Your task to perform on an android device: change your default location settings in chrome Image 0: 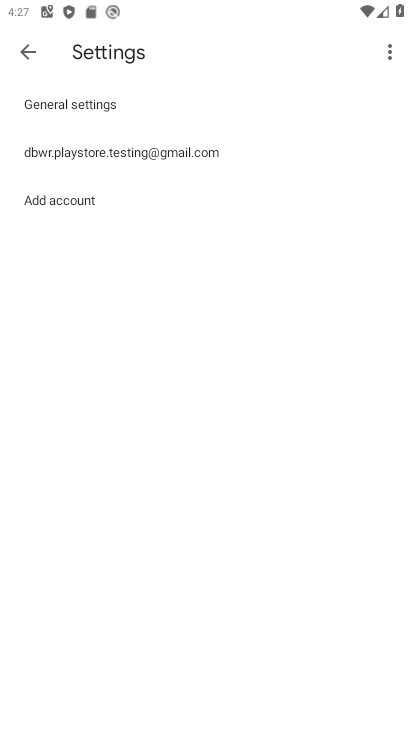
Step 0: press back button
Your task to perform on an android device: change your default location settings in chrome Image 1: 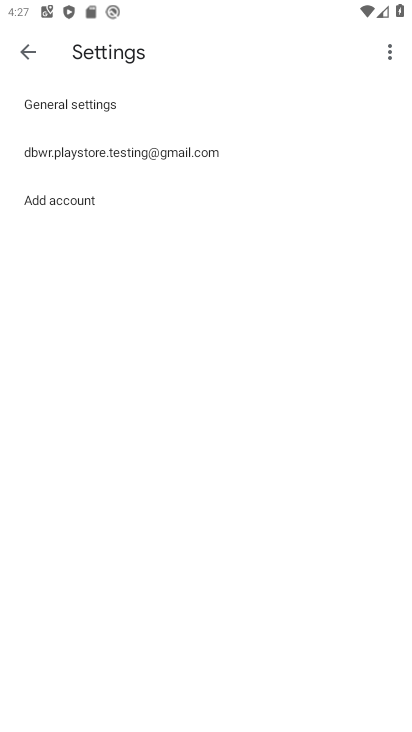
Step 1: press back button
Your task to perform on an android device: change your default location settings in chrome Image 2: 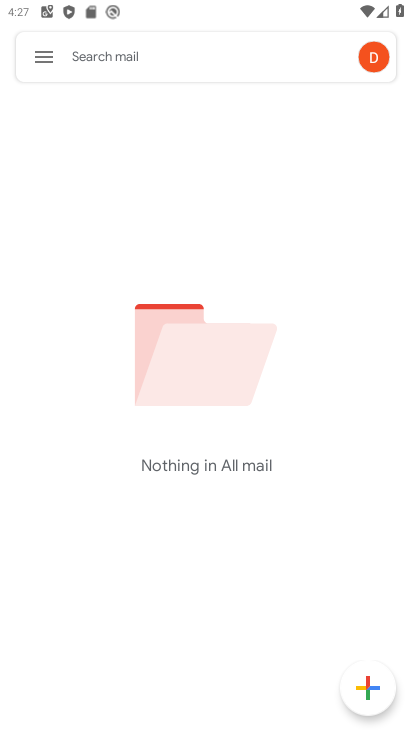
Step 2: press back button
Your task to perform on an android device: change your default location settings in chrome Image 3: 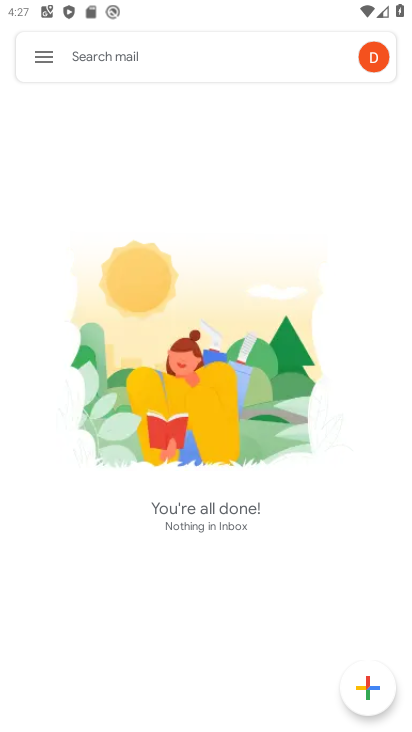
Step 3: press back button
Your task to perform on an android device: change your default location settings in chrome Image 4: 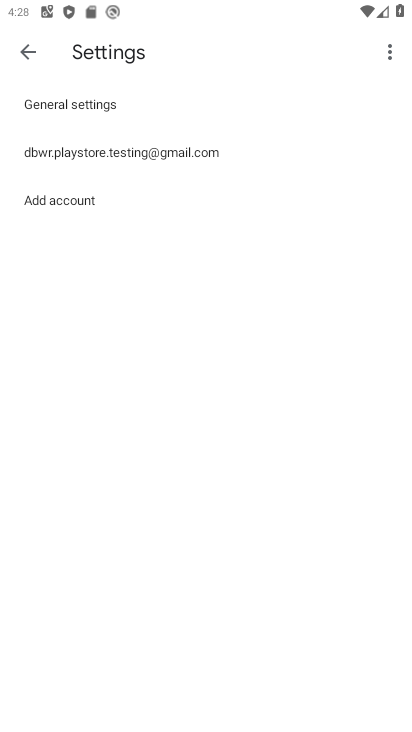
Step 4: press home button
Your task to perform on an android device: change your default location settings in chrome Image 5: 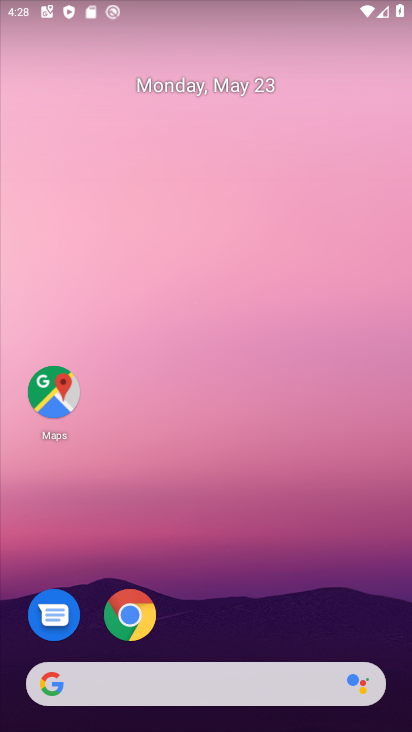
Step 5: click (127, 616)
Your task to perform on an android device: change your default location settings in chrome Image 6: 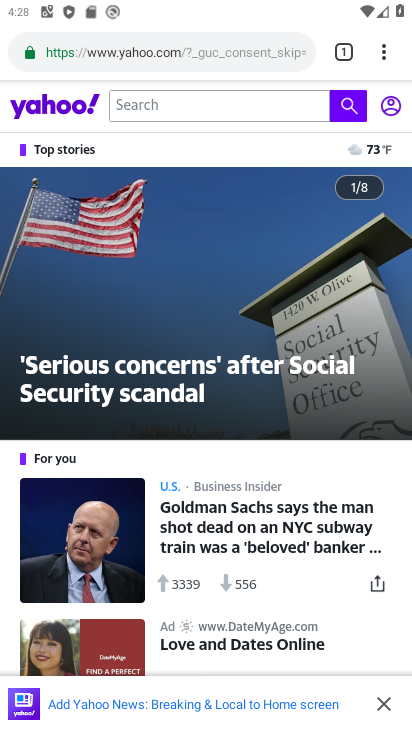
Step 6: drag from (380, 47) to (212, 620)
Your task to perform on an android device: change your default location settings in chrome Image 7: 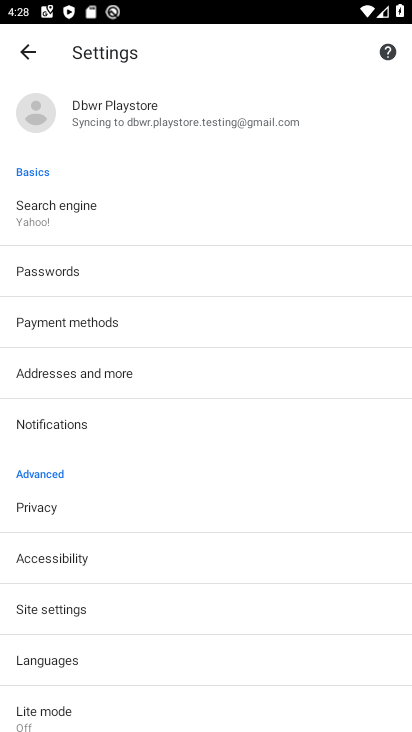
Step 7: click (69, 608)
Your task to perform on an android device: change your default location settings in chrome Image 8: 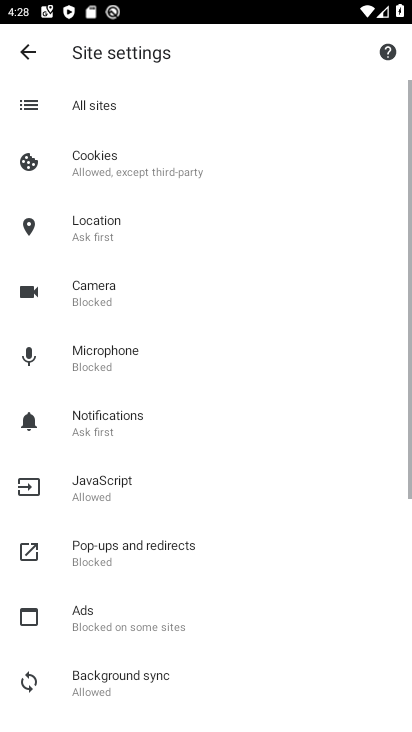
Step 8: click (79, 218)
Your task to perform on an android device: change your default location settings in chrome Image 9: 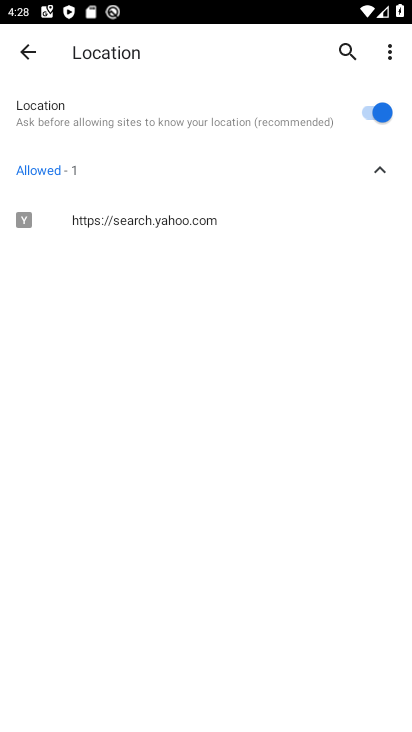
Step 9: click (156, 222)
Your task to perform on an android device: change your default location settings in chrome Image 10: 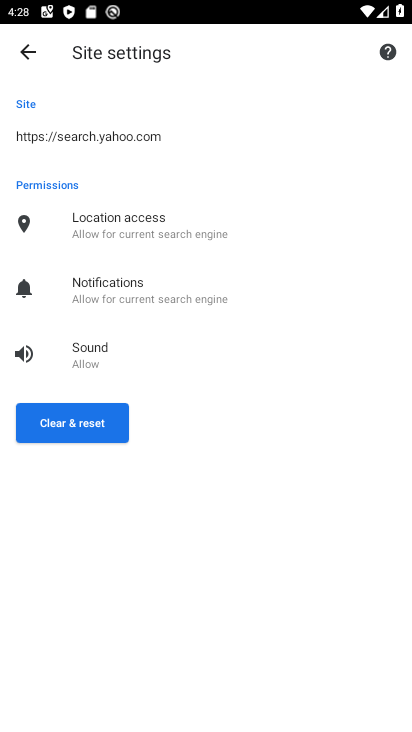
Step 10: click (127, 208)
Your task to perform on an android device: change your default location settings in chrome Image 11: 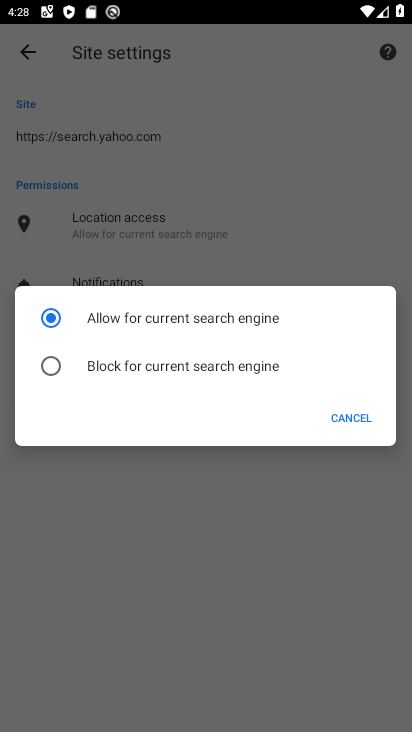
Step 11: click (254, 370)
Your task to perform on an android device: change your default location settings in chrome Image 12: 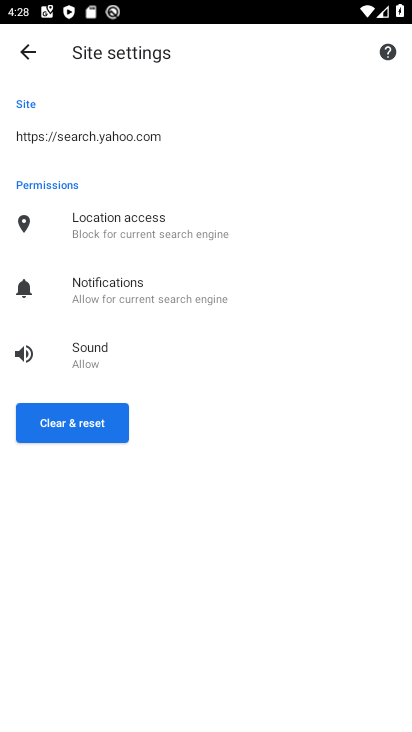
Step 12: task complete